Your task to perform on an android device: Open calendar and show me the first week of next month Image 0: 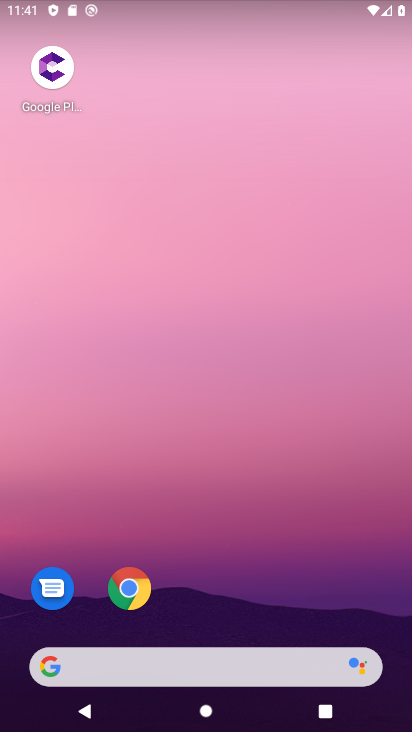
Step 0: drag from (199, 569) to (167, 9)
Your task to perform on an android device: Open calendar and show me the first week of next month Image 1: 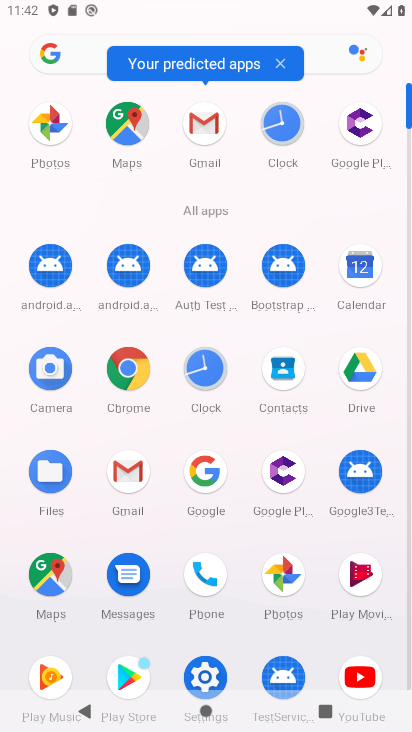
Step 1: click (362, 287)
Your task to perform on an android device: Open calendar and show me the first week of next month Image 2: 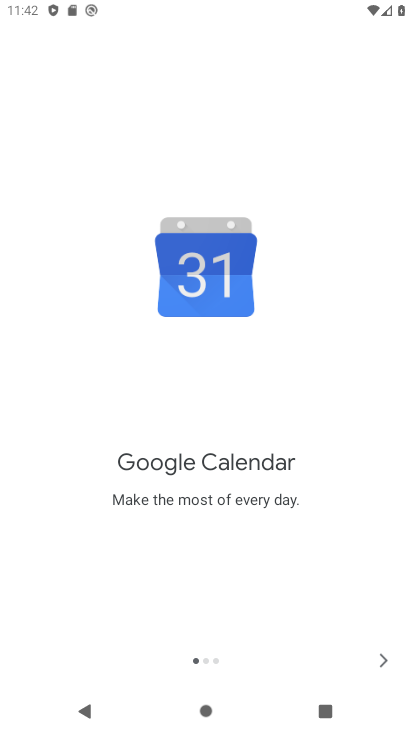
Step 2: click (389, 657)
Your task to perform on an android device: Open calendar and show me the first week of next month Image 3: 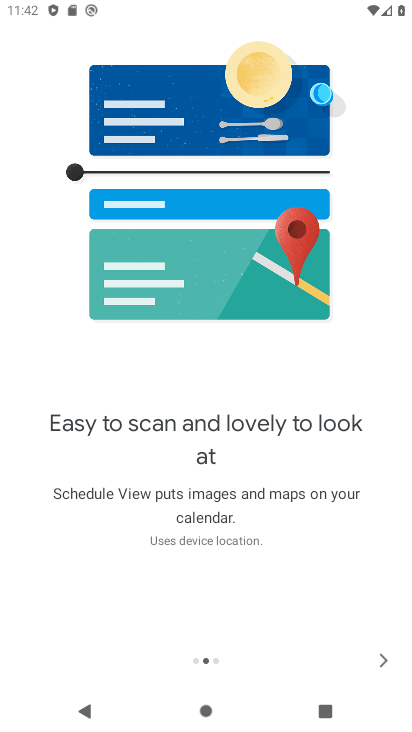
Step 3: click (386, 672)
Your task to perform on an android device: Open calendar and show me the first week of next month Image 4: 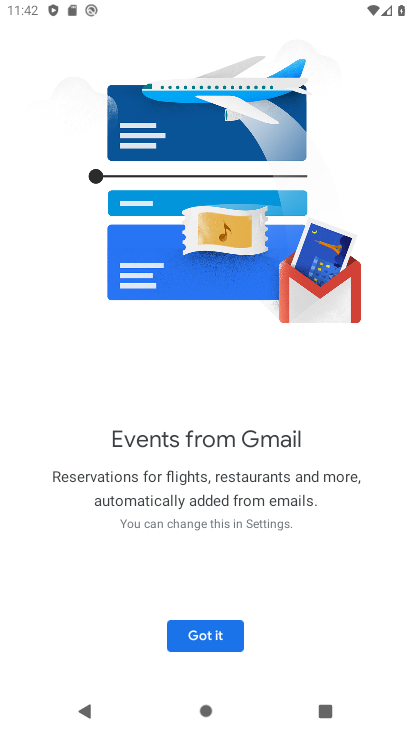
Step 4: click (220, 630)
Your task to perform on an android device: Open calendar and show me the first week of next month Image 5: 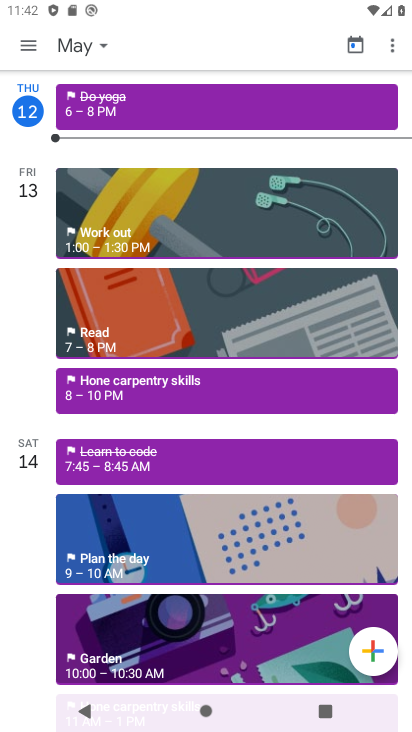
Step 5: click (96, 53)
Your task to perform on an android device: Open calendar and show me the first week of next month Image 6: 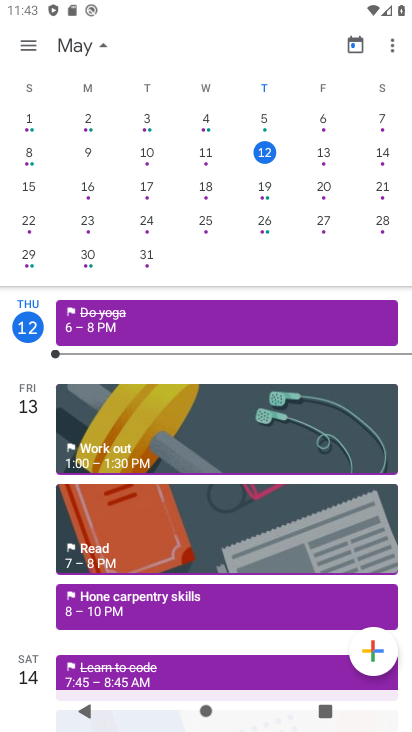
Step 6: drag from (288, 184) to (13, 186)
Your task to perform on an android device: Open calendar and show me the first week of next month Image 7: 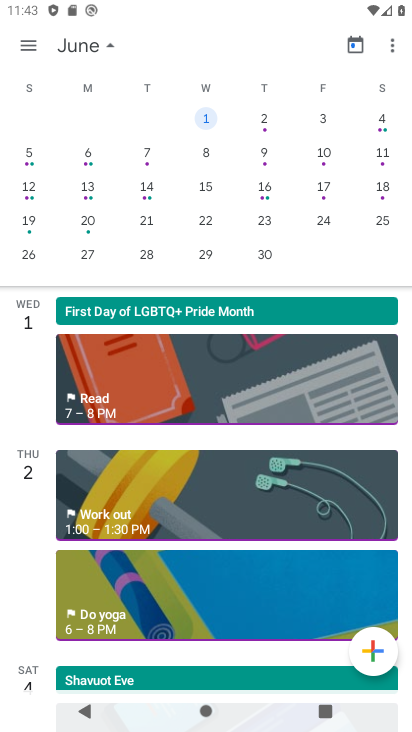
Step 7: click (38, 167)
Your task to perform on an android device: Open calendar and show me the first week of next month Image 8: 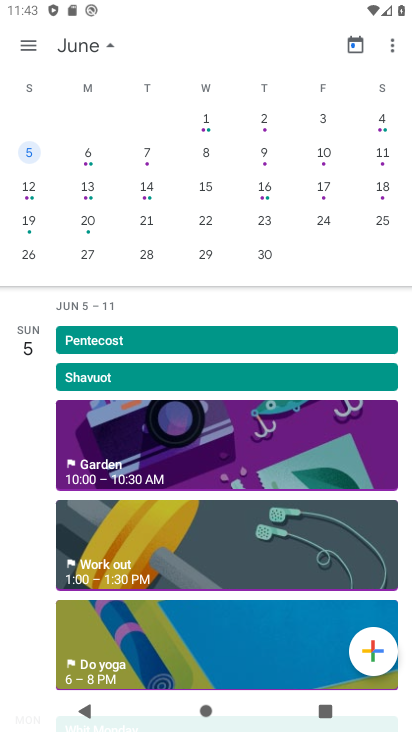
Step 8: task complete